Your task to perform on an android device: change notifications settings Image 0: 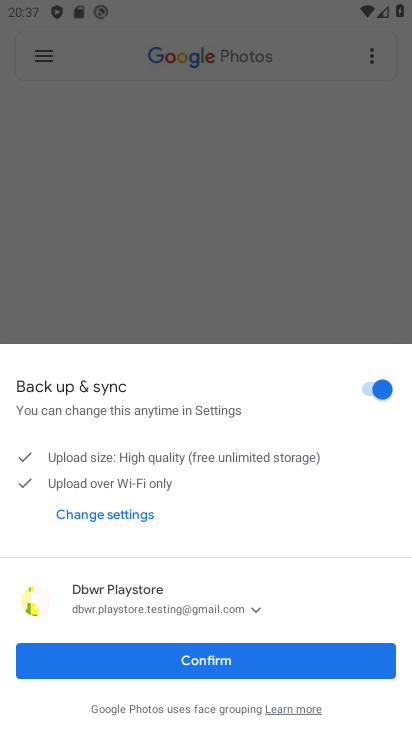
Step 0: press home button
Your task to perform on an android device: change notifications settings Image 1: 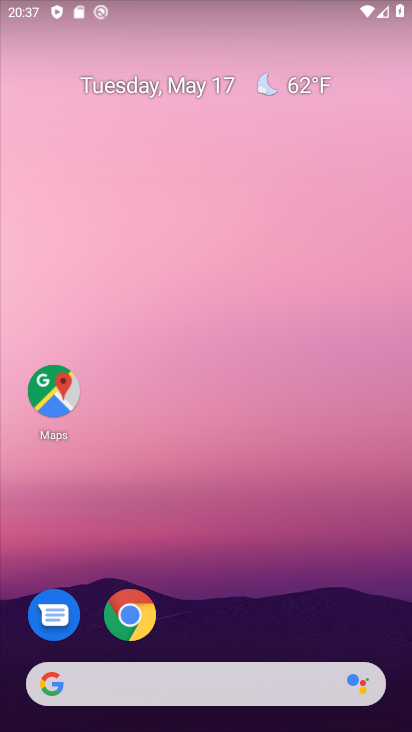
Step 1: drag from (209, 539) to (117, 36)
Your task to perform on an android device: change notifications settings Image 2: 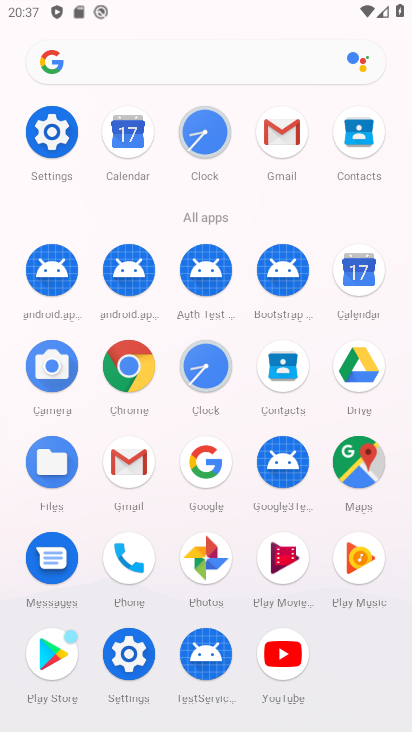
Step 2: click (45, 142)
Your task to perform on an android device: change notifications settings Image 3: 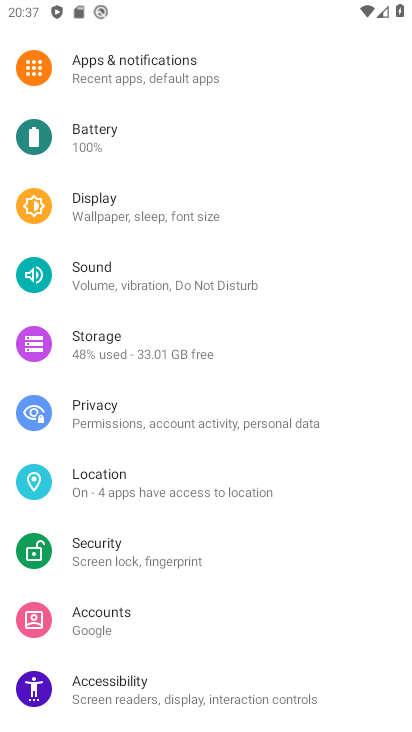
Step 3: click (174, 73)
Your task to perform on an android device: change notifications settings Image 4: 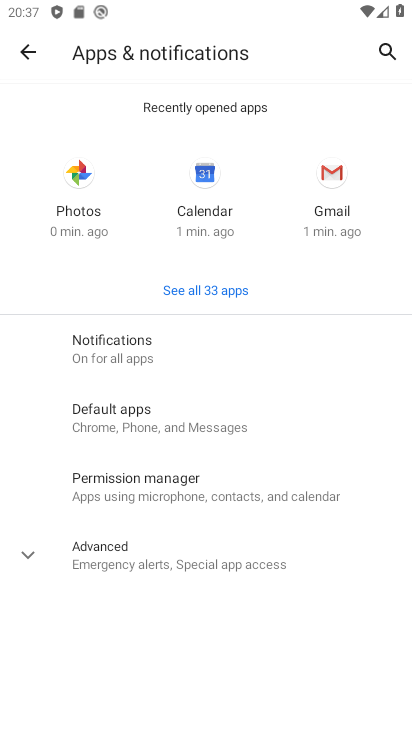
Step 4: click (134, 344)
Your task to perform on an android device: change notifications settings Image 5: 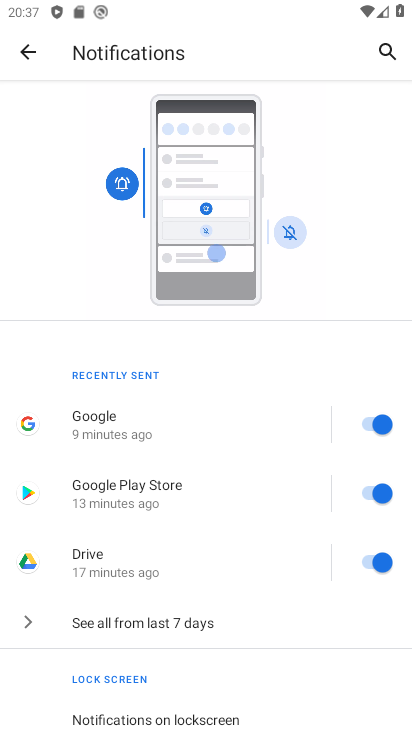
Step 5: drag from (175, 541) to (162, 171)
Your task to perform on an android device: change notifications settings Image 6: 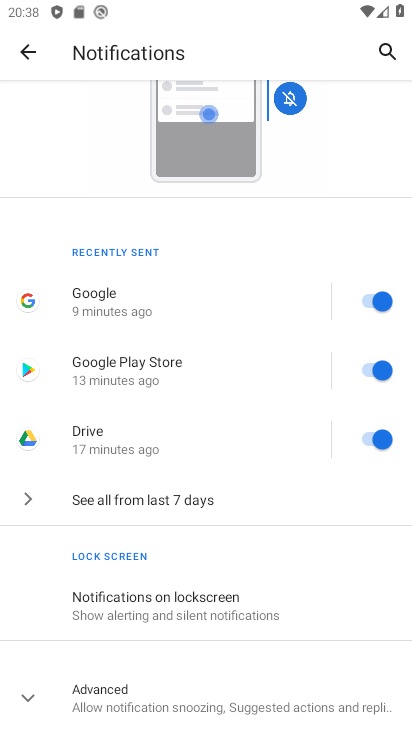
Step 6: click (130, 607)
Your task to perform on an android device: change notifications settings Image 7: 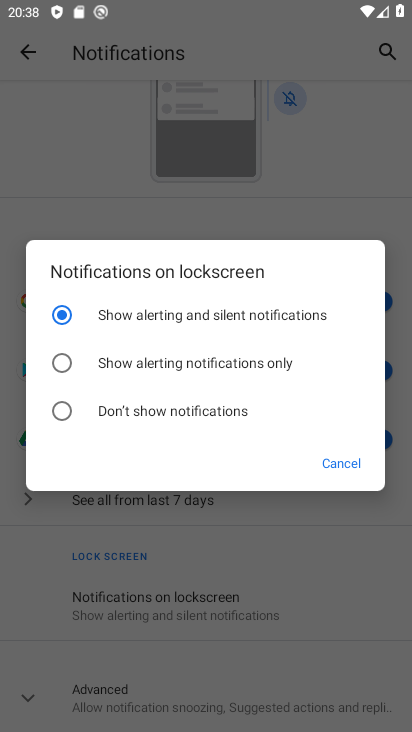
Step 7: click (121, 412)
Your task to perform on an android device: change notifications settings Image 8: 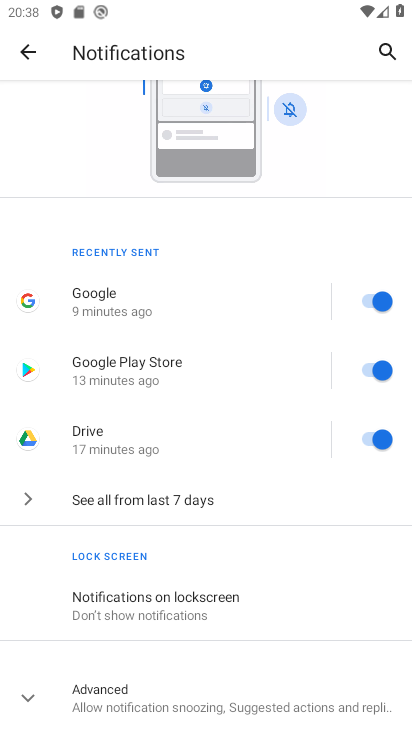
Step 8: task complete